Your task to perform on an android device: toggle wifi Image 0: 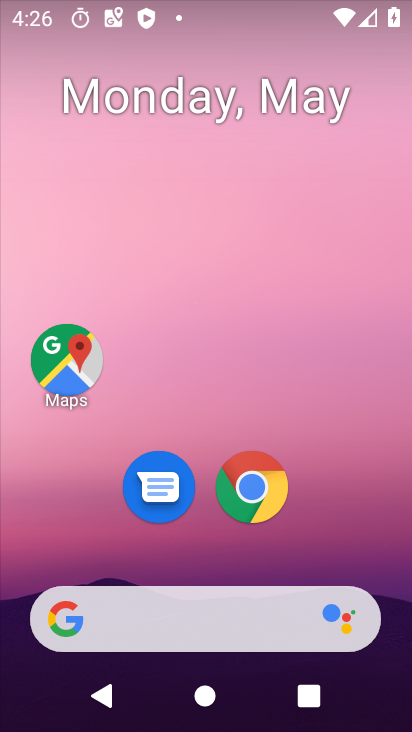
Step 0: drag from (334, 563) to (281, 7)
Your task to perform on an android device: toggle wifi Image 1: 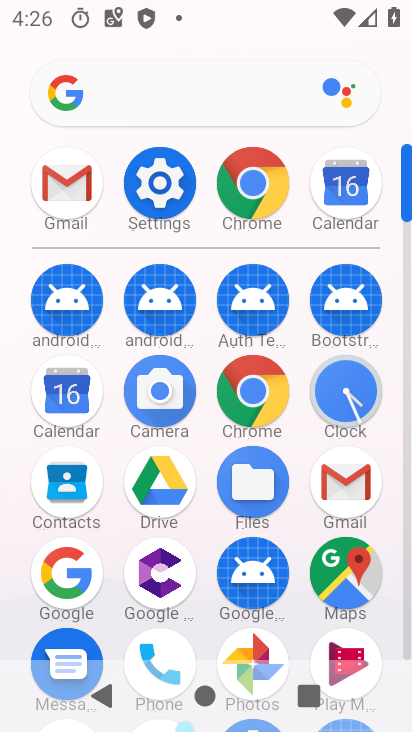
Step 1: click (163, 182)
Your task to perform on an android device: toggle wifi Image 2: 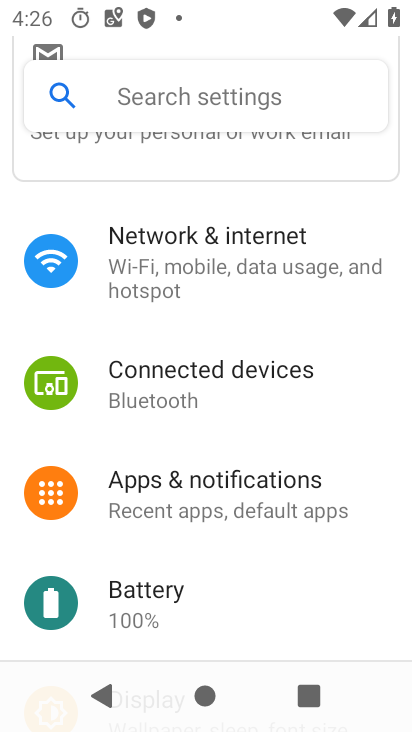
Step 2: click (176, 247)
Your task to perform on an android device: toggle wifi Image 3: 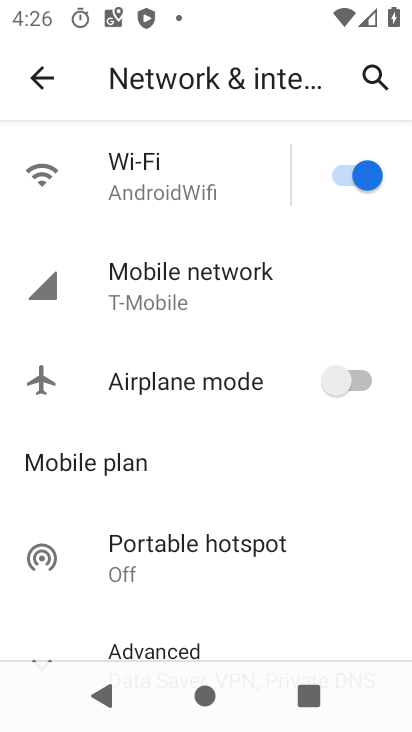
Step 3: click (360, 185)
Your task to perform on an android device: toggle wifi Image 4: 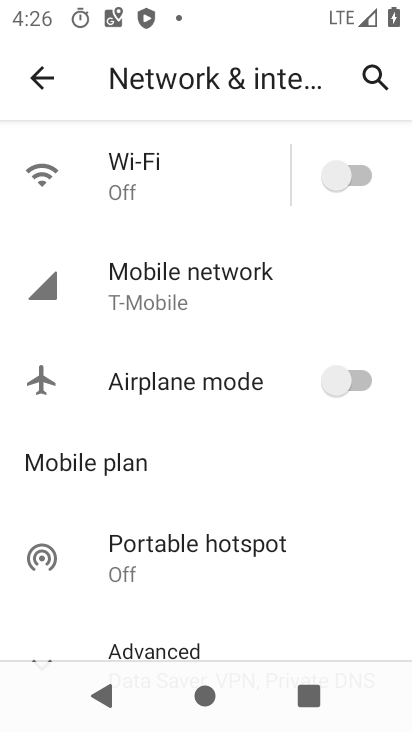
Step 4: task complete